Your task to perform on an android device: What's the news in Chile? Image 0: 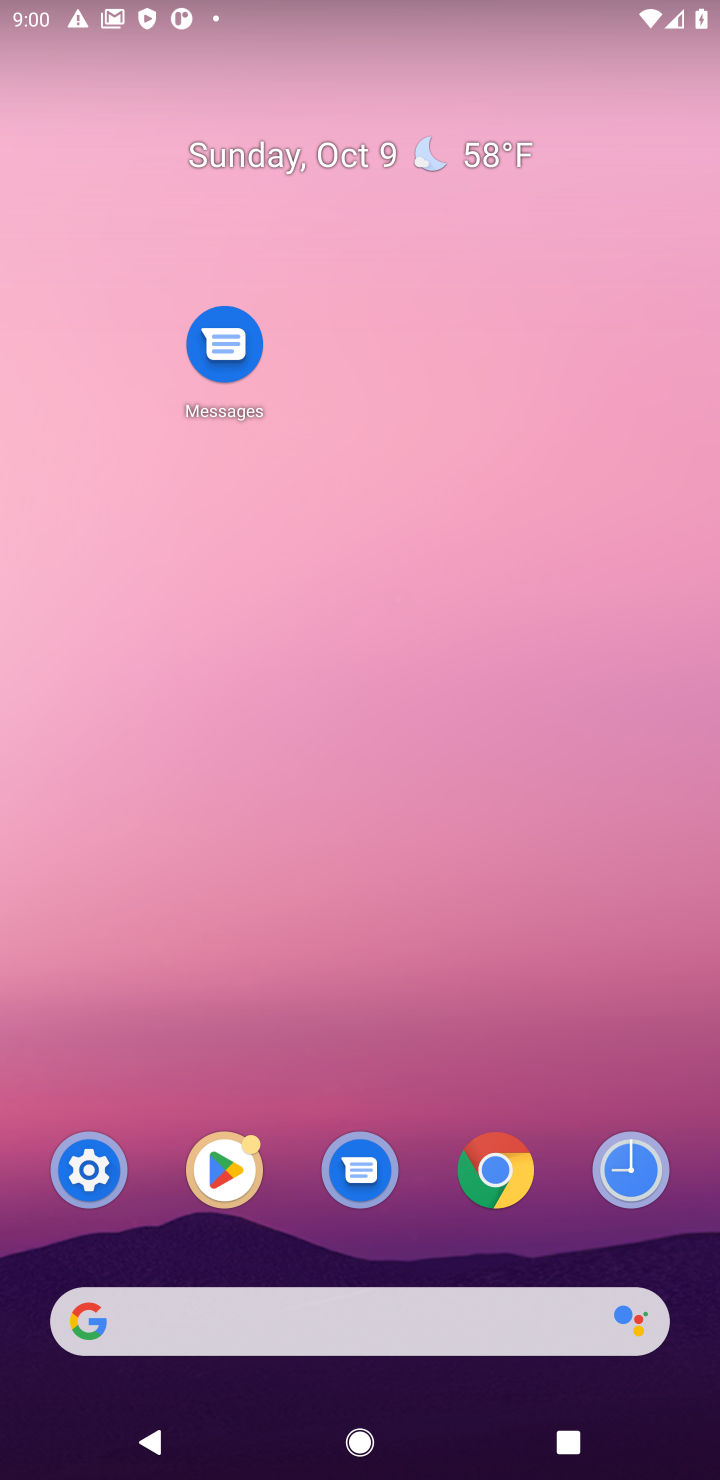
Step 0: click (451, 1312)
Your task to perform on an android device: What's the news in Chile? Image 1: 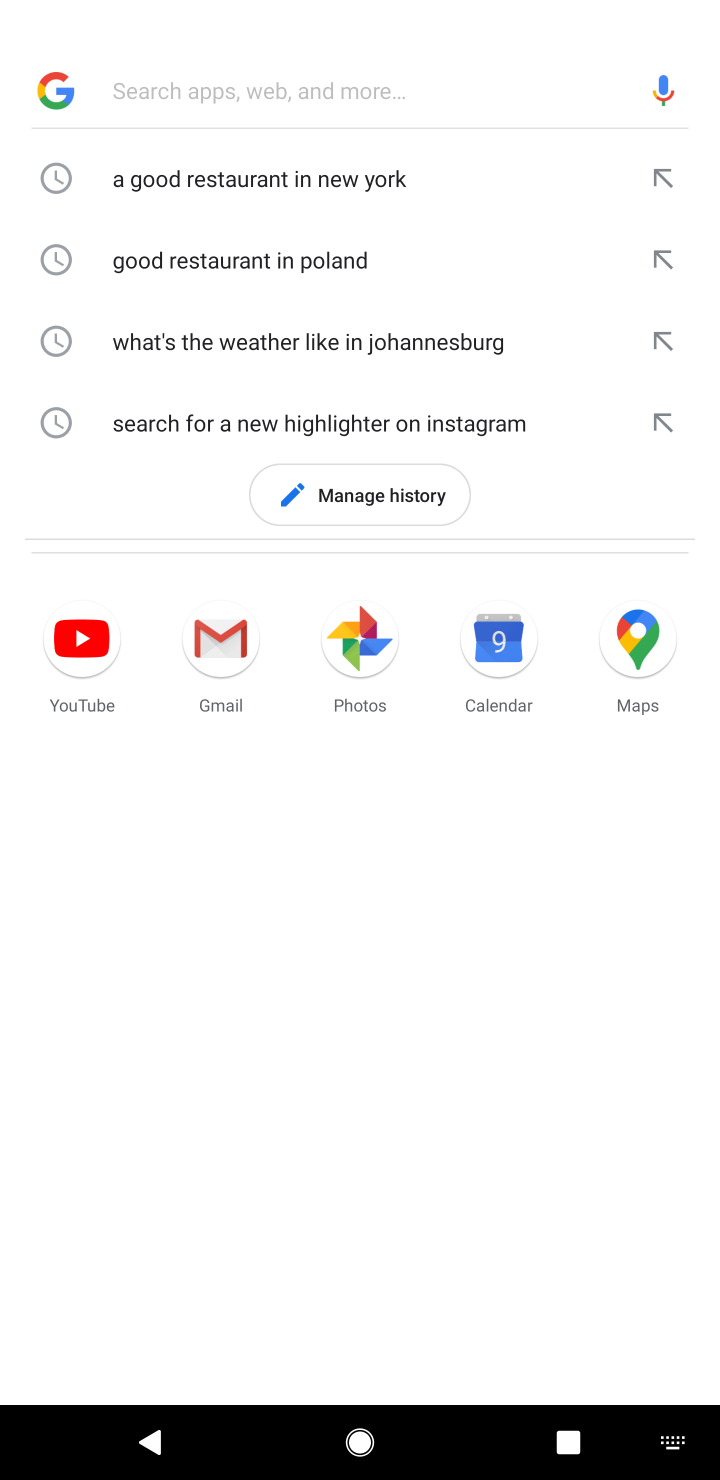
Step 1: type "What's the news in Chile?"
Your task to perform on an android device: What's the news in Chile? Image 2: 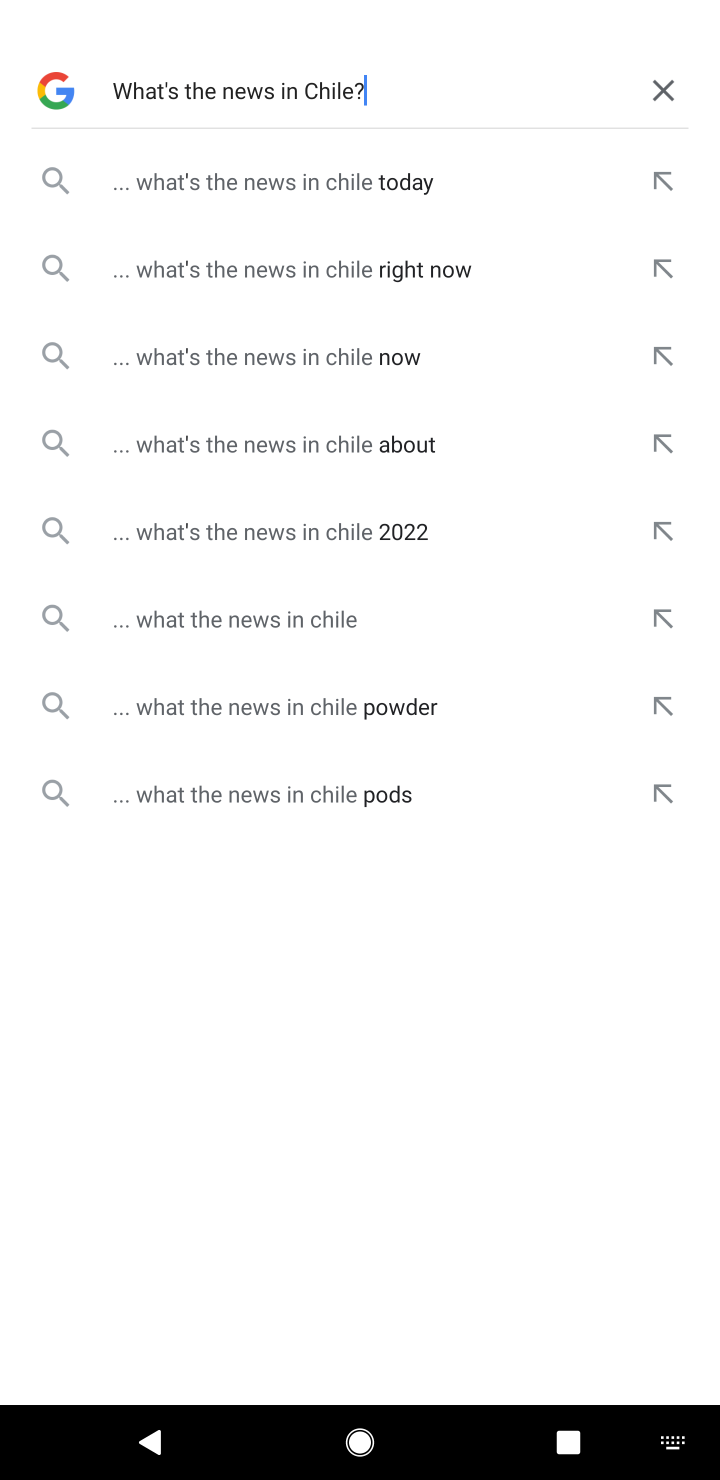
Step 2: click (338, 177)
Your task to perform on an android device: What's the news in Chile? Image 3: 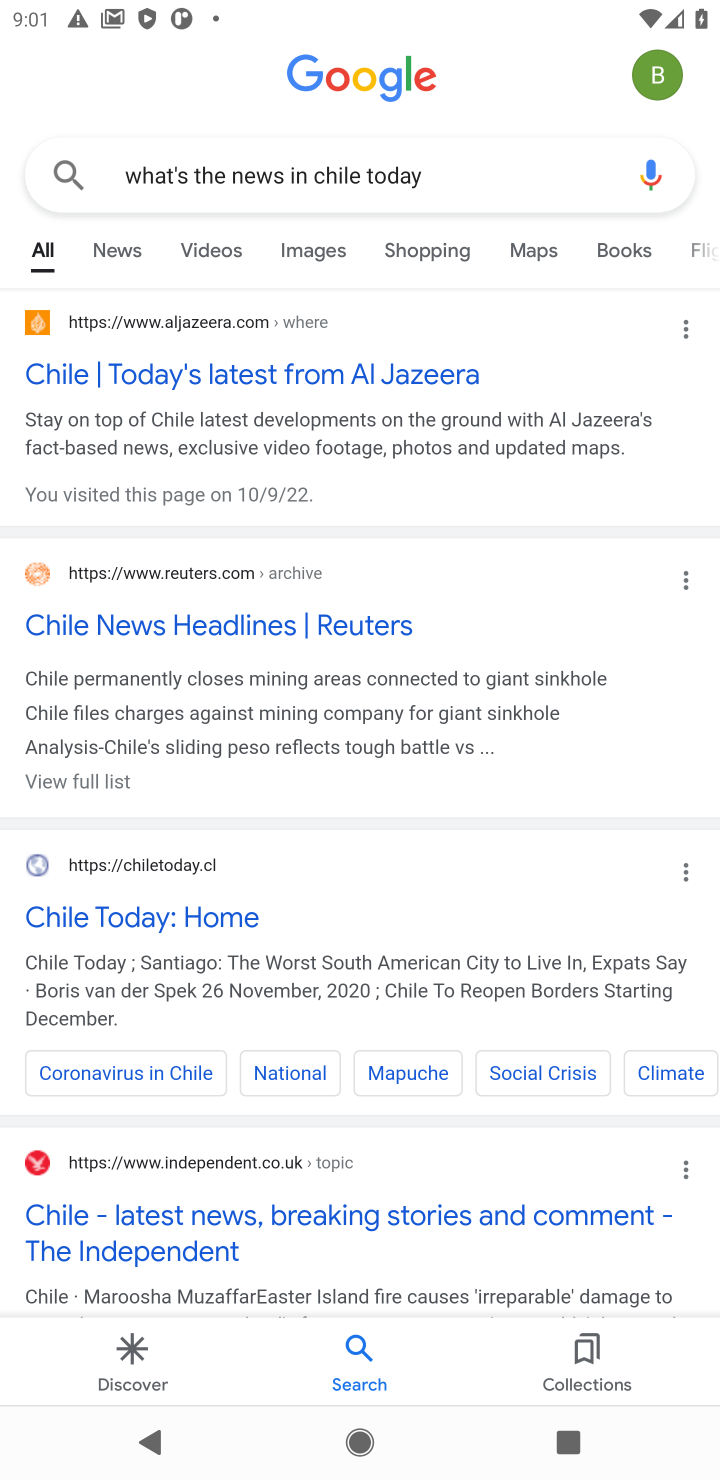
Step 3: task complete